Your task to perform on an android device: Open Google Maps Image 0: 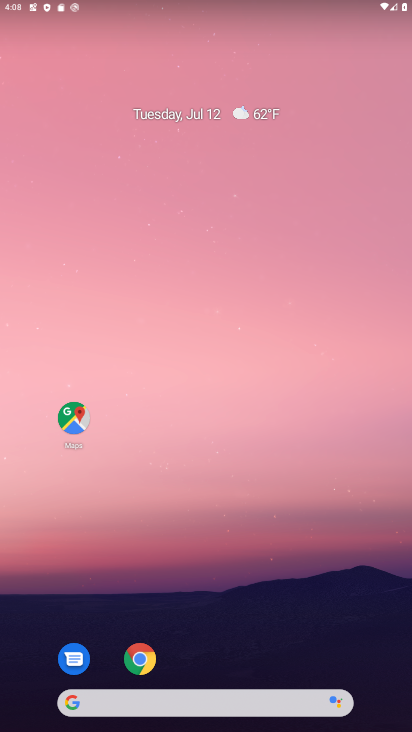
Step 0: press home button
Your task to perform on an android device: Open Google Maps Image 1: 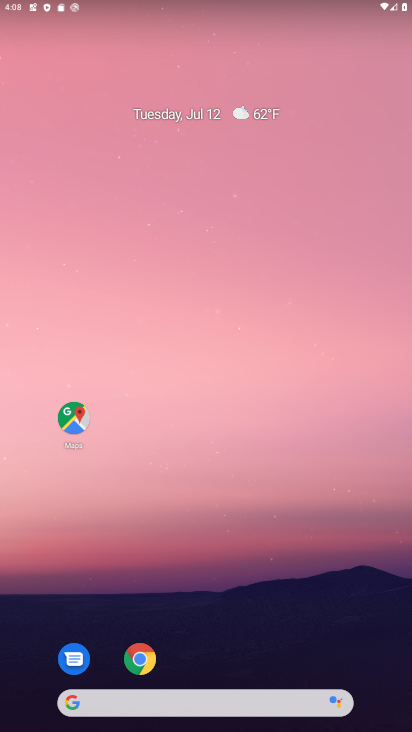
Step 1: click (72, 415)
Your task to perform on an android device: Open Google Maps Image 2: 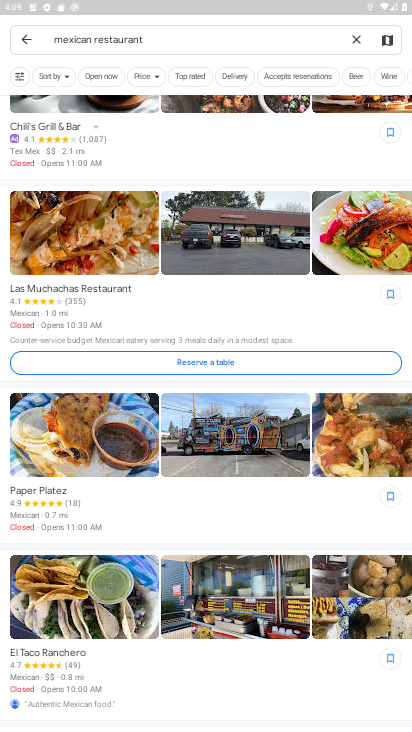
Step 2: click (26, 42)
Your task to perform on an android device: Open Google Maps Image 3: 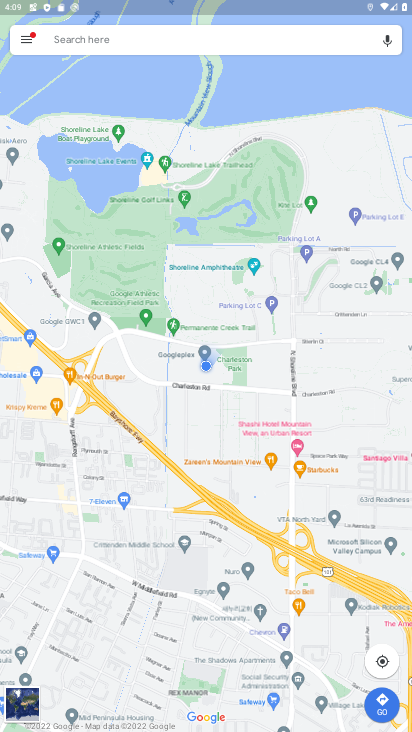
Step 3: task complete